Your task to perform on an android device: Search for sushi restaurants on Maps Image 0: 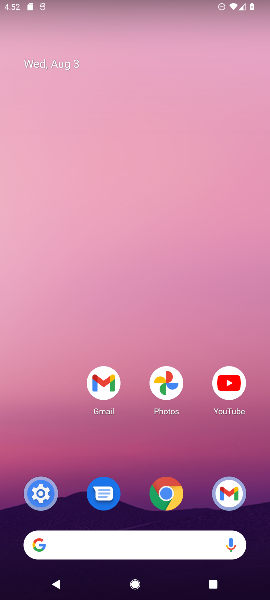
Step 0: press home button
Your task to perform on an android device: Search for sushi restaurants on Maps Image 1: 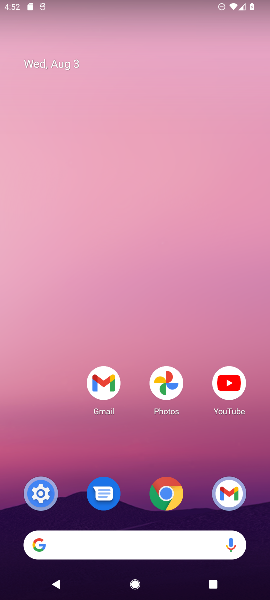
Step 1: drag from (66, 455) to (68, 94)
Your task to perform on an android device: Search for sushi restaurants on Maps Image 2: 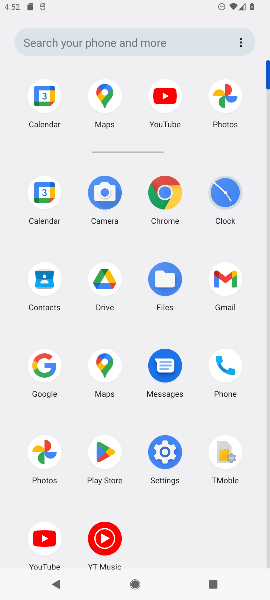
Step 2: click (107, 367)
Your task to perform on an android device: Search for sushi restaurants on Maps Image 3: 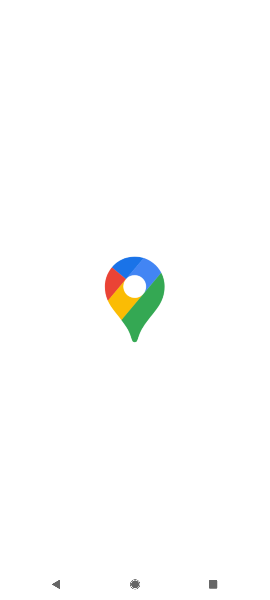
Step 3: task complete